Your task to perform on an android device: remove spam from my inbox in the gmail app Image 0: 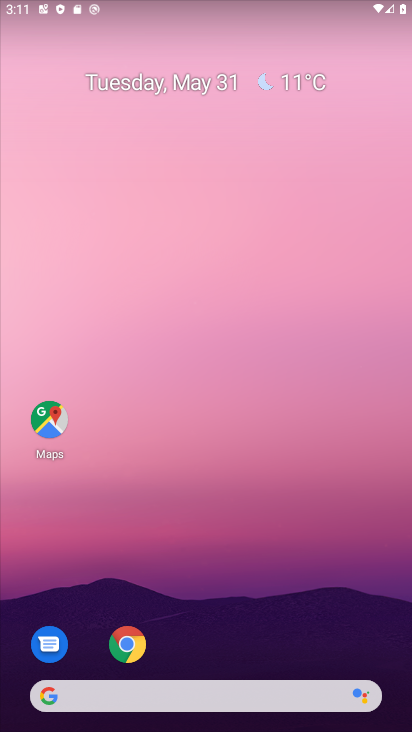
Step 0: drag from (215, 613) to (290, 609)
Your task to perform on an android device: remove spam from my inbox in the gmail app Image 1: 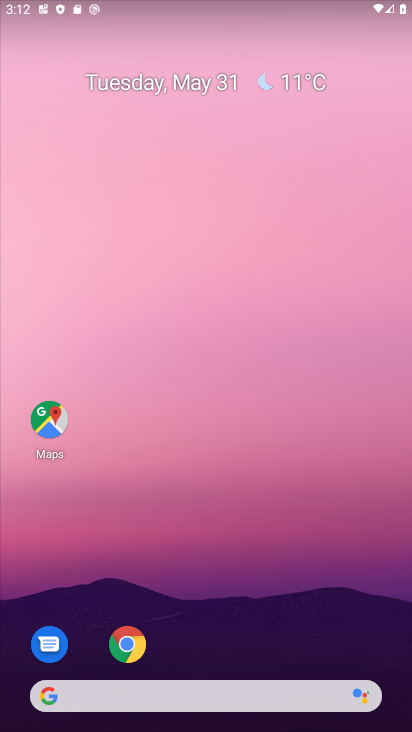
Step 1: drag from (203, 635) to (148, 194)
Your task to perform on an android device: remove spam from my inbox in the gmail app Image 2: 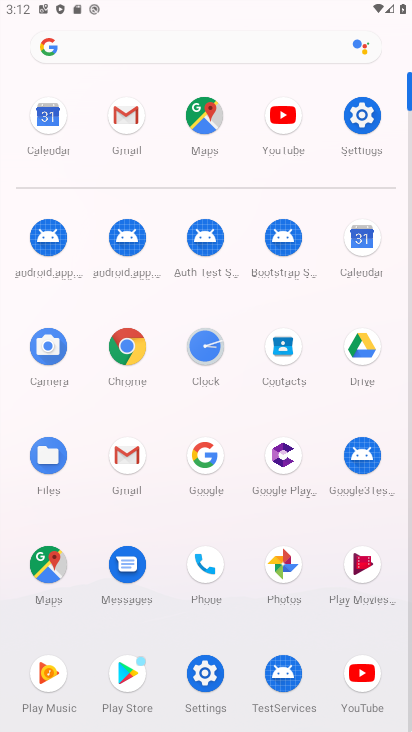
Step 2: click (126, 449)
Your task to perform on an android device: remove spam from my inbox in the gmail app Image 3: 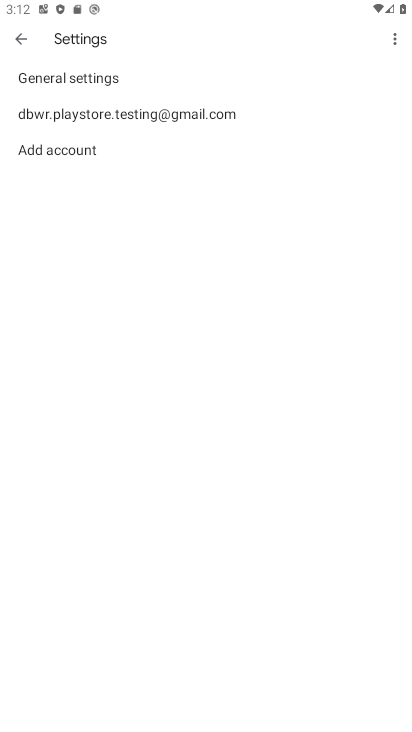
Step 3: click (65, 114)
Your task to perform on an android device: remove spam from my inbox in the gmail app Image 4: 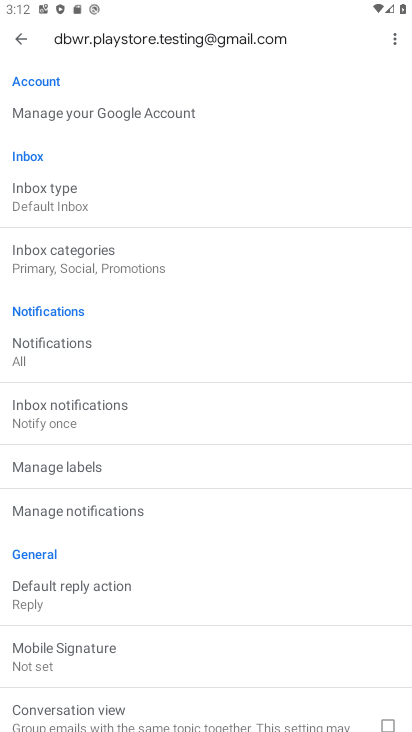
Step 4: click (25, 41)
Your task to perform on an android device: remove spam from my inbox in the gmail app Image 5: 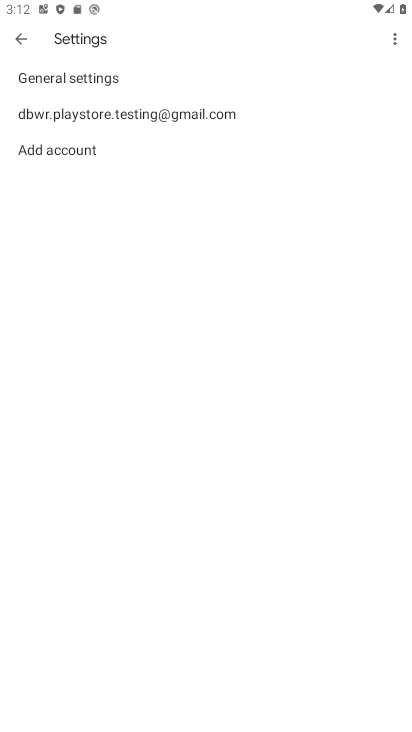
Step 5: click (15, 33)
Your task to perform on an android device: remove spam from my inbox in the gmail app Image 6: 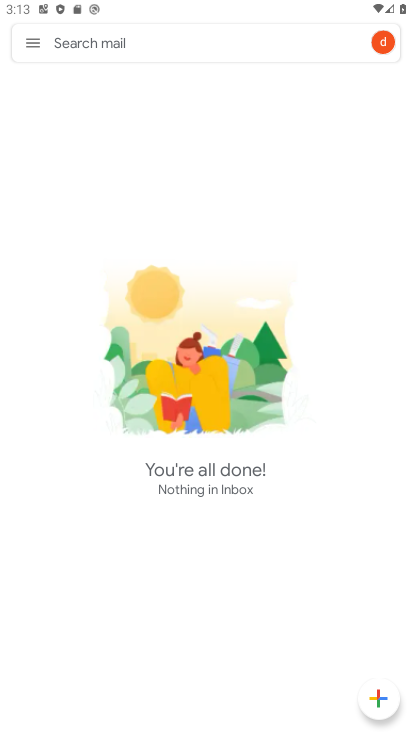
Step 6: click (24, 37)
Your task to perform on an android device: remove spam from my inbox in the gmail app Image 7: 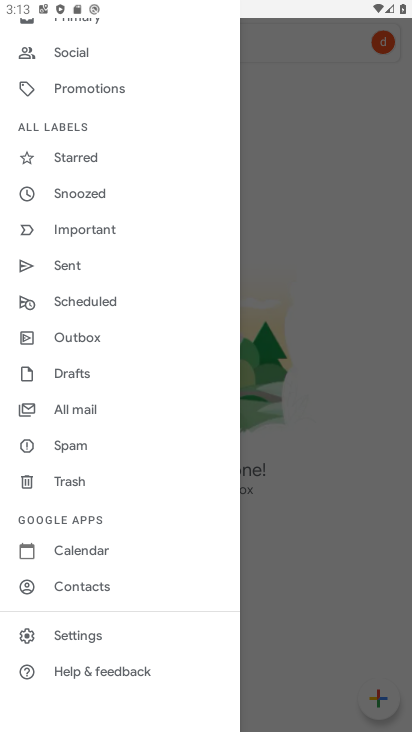
Step 7: click (62, 441)
Your task to perform on an android device: remove spam from my inbox in the gmail app Image 8: 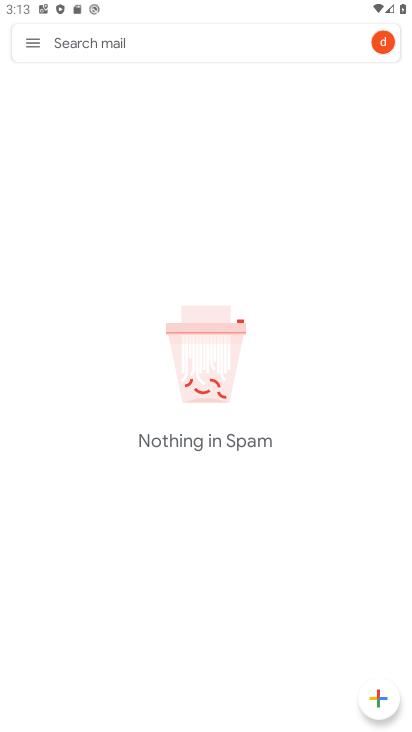
Step 8: task complete